Your task to perform on an android device: Go to Wikipedia Image 0: 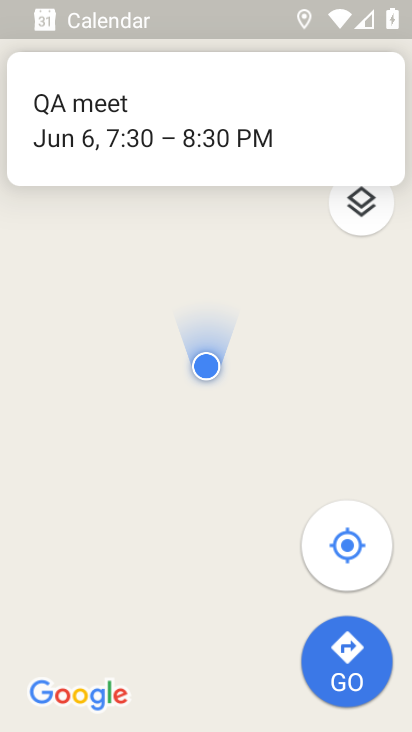
Step 0: press back button
Your task to perform on an android device: Go to Wikipedia Image 1: 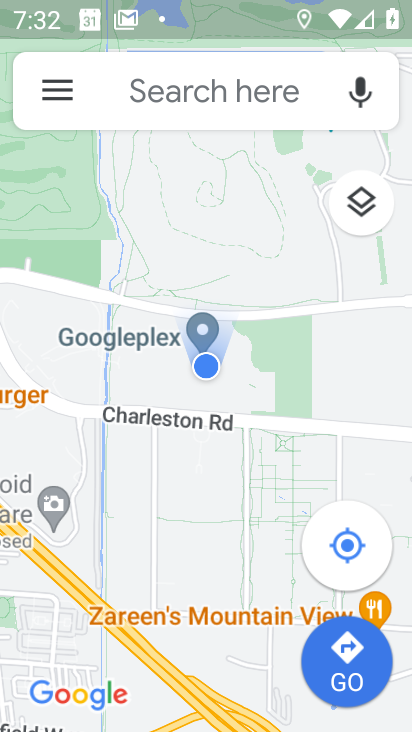
Step 1: press back button
Your task to perform on an android device: Go to Wikipedia Image 2: 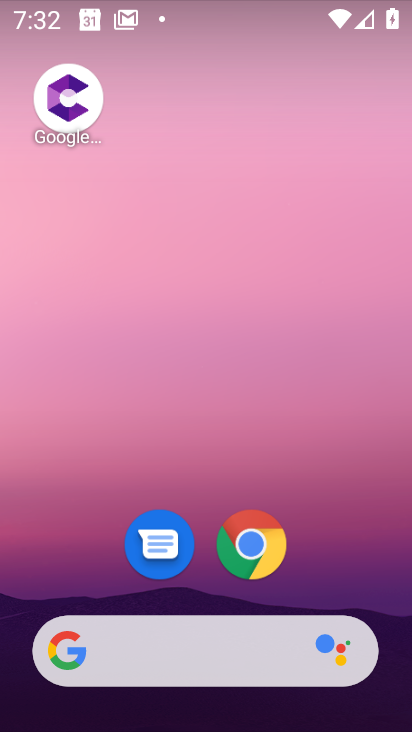
Step 2: click (251, 541)
Your task to perform on an android device: Go to Wikipedia Image 3: 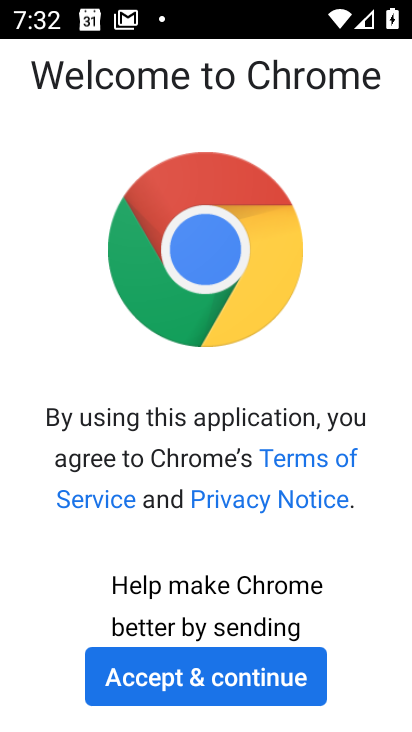
Step 3: click (248, 675)
Your task to perform on an android device: Go to Wikipedia Image 4: 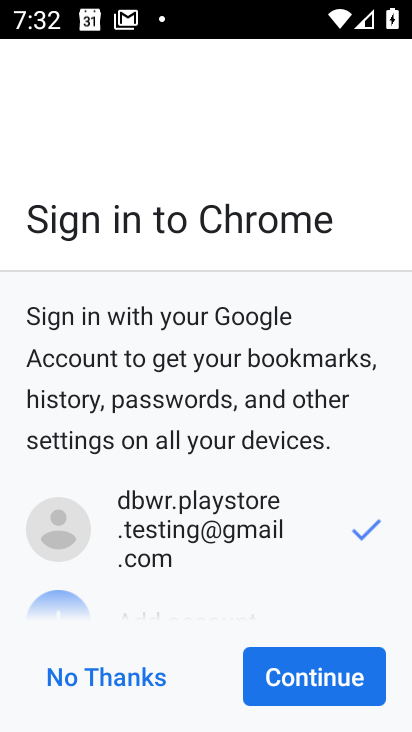
Step 4: click (311, 686)
Your task to perform on an android device: Go to Wikipedia Image 5: 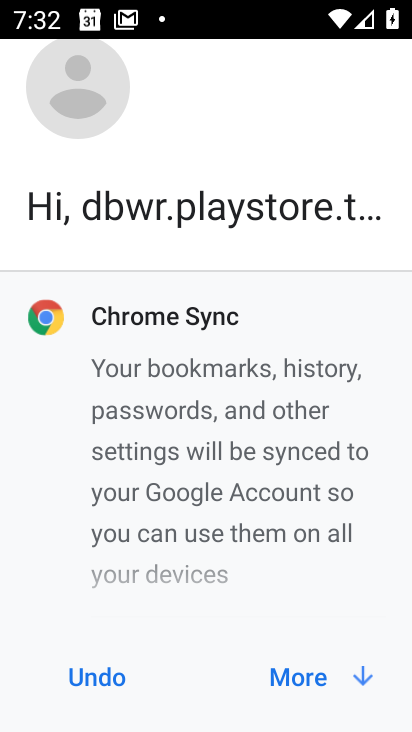
Step 5: click (308, 677)
Your task to perform on an android device: Go to Wikipedia Image 6: 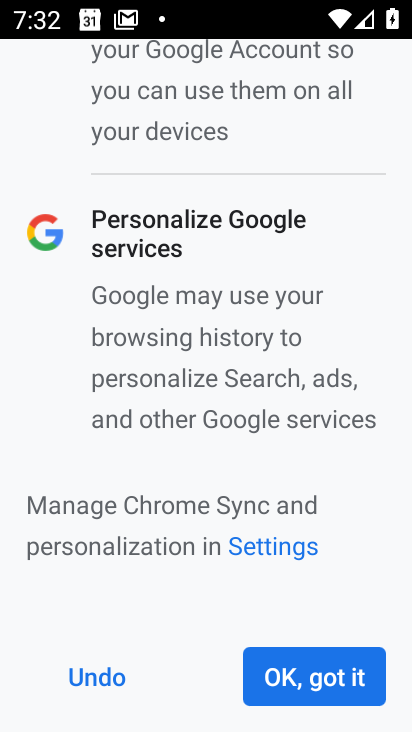
Step 6: click (308, 677)
Your task to perform on an android device: Go to Wikipedia Image 7: 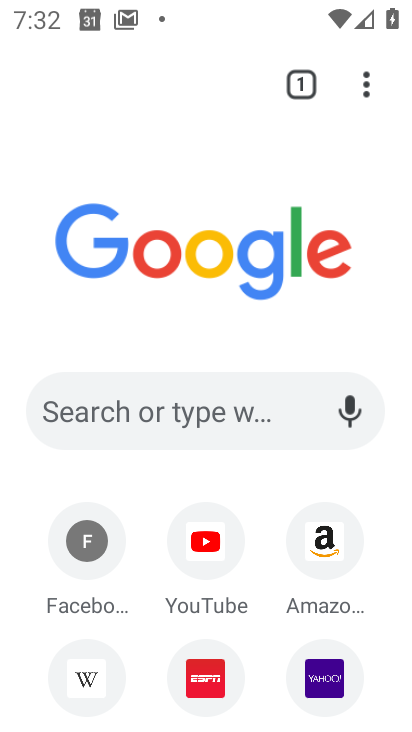
Step 7: click (87, 672)
Your task to perform on an android device: Go to Wikipedia Image 8: 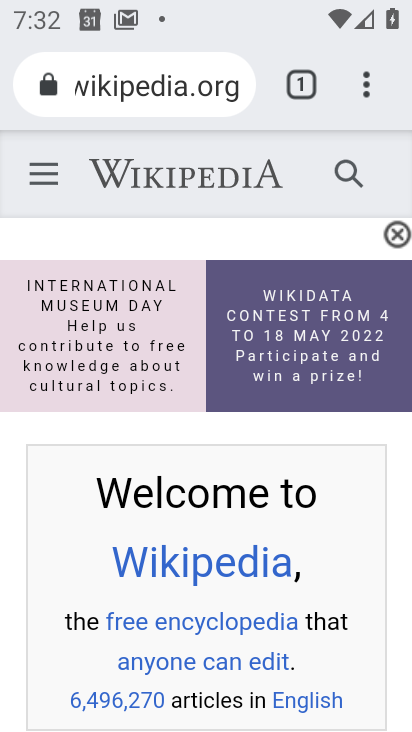
Step 8: task complete